Your task to perform on an android device: turn on location history Image 0: 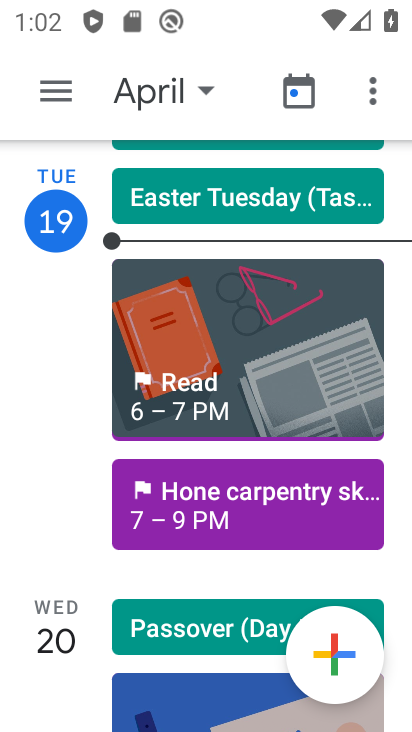
Step 0: press home button
Your task to perform on an android device: turn on location history Image 1: 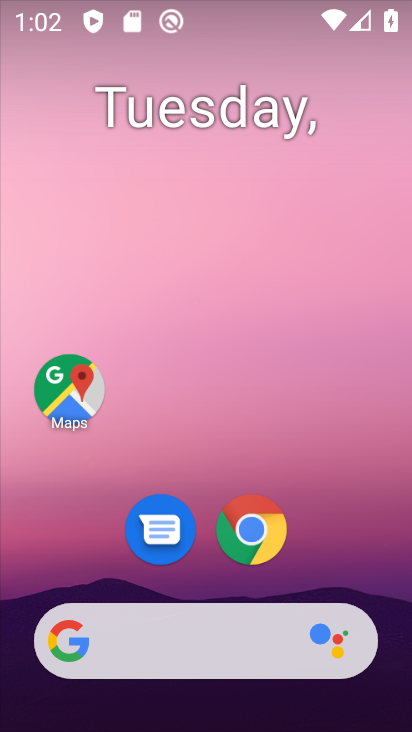
Step 1: click (66, 375)
Your task to perform on an android device: turn on location history Image 2: 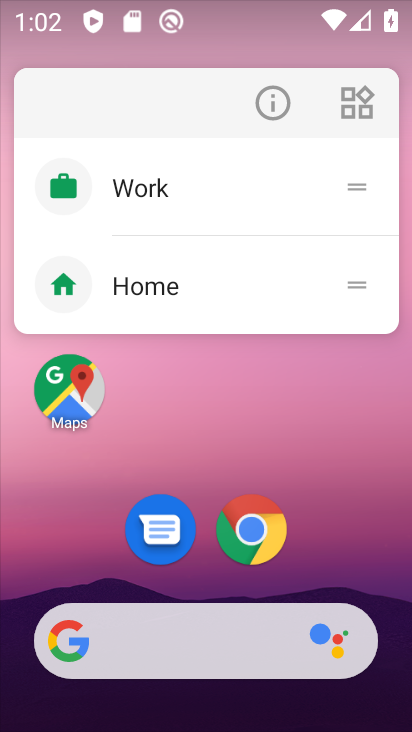
Step 2: click (66, 375)
Your task to perform on an android device: turn on location history Image 3: 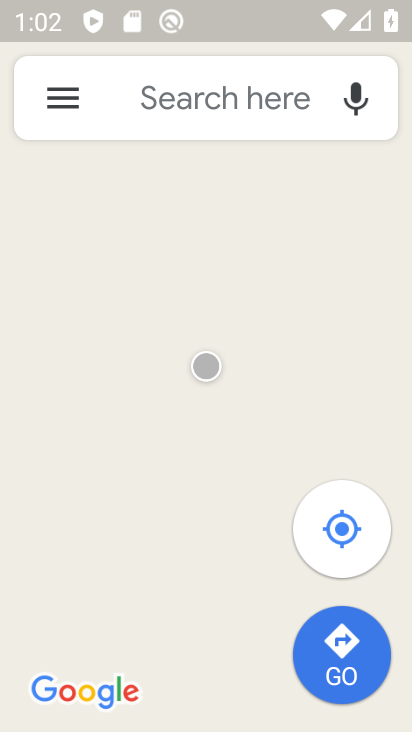
Step 3: click (58, 97)
Your task to perform on an android device: turn on location history Image 4: 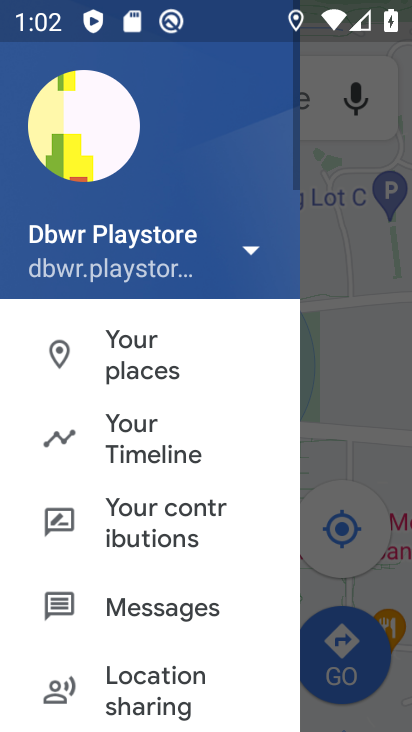
Step 4: click (158, 449)
Your task to perform on an android device: turn on location history Image 5: 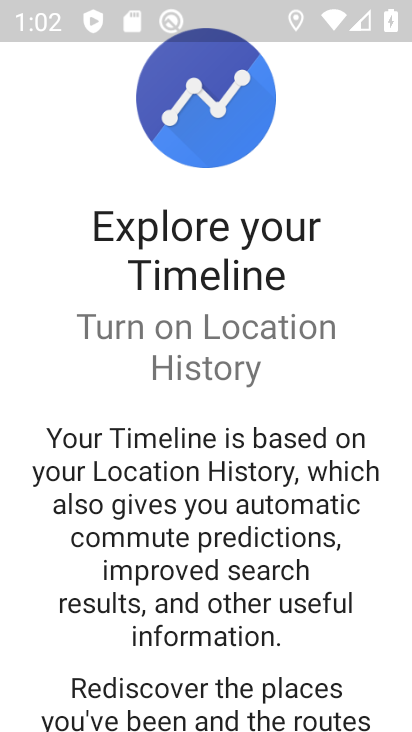
Step 5: drag from (321, 642) to (257, 255)
Your task to perform on an android device: turn on location history Image 6: 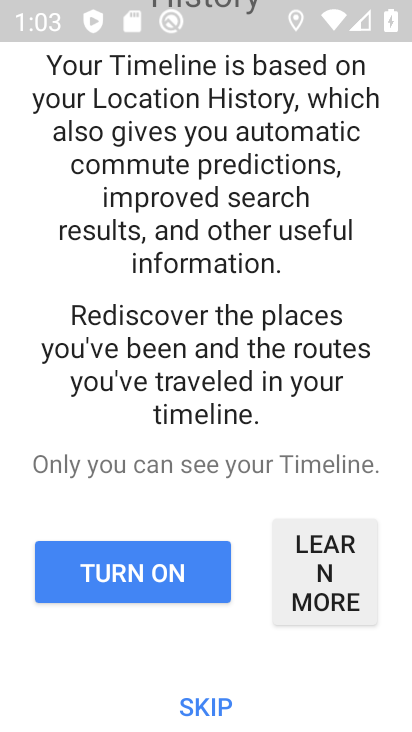
Step 6: click (216, 703)
Your task to perform on an android device: turn on location history Image 7: 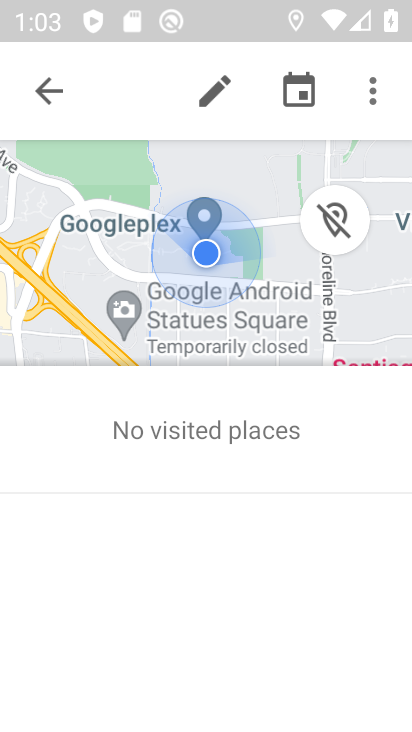
Step 7: click (374, 102)
Your task to perform on an android device: turn on location history Image 8: 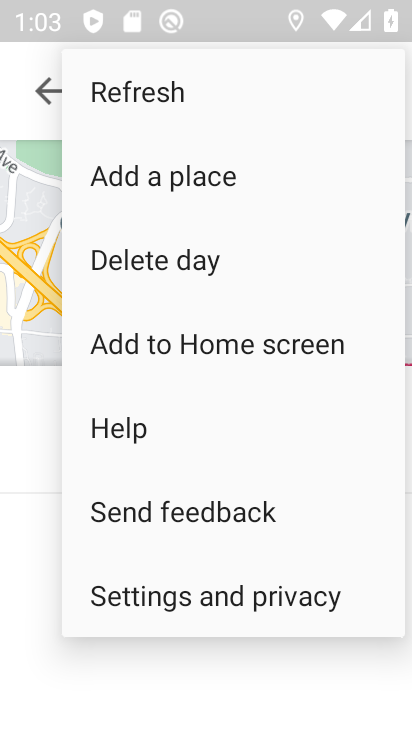
Step 8: click (289, 603)
Your task to perform on an android device: turn on location history Image 9: 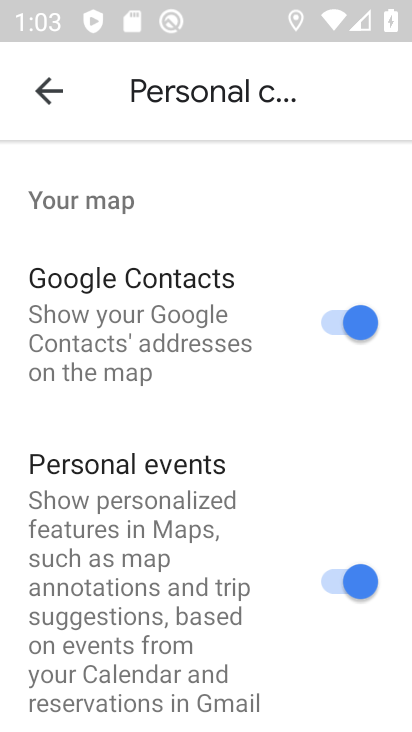
Step 9: drag from (279, 645) to (226, 288)
Your task to perform on an android device: turn on location history Image 10: 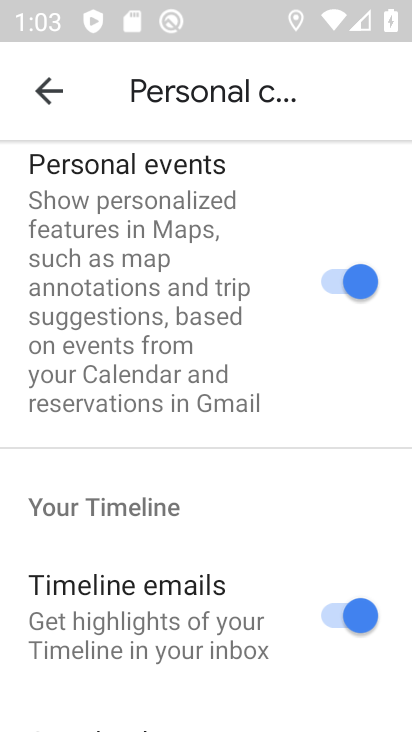
Step 10: drag from (230, 534) to (218, 153)
Your task to perform on an android device: turn on location history Image 11: 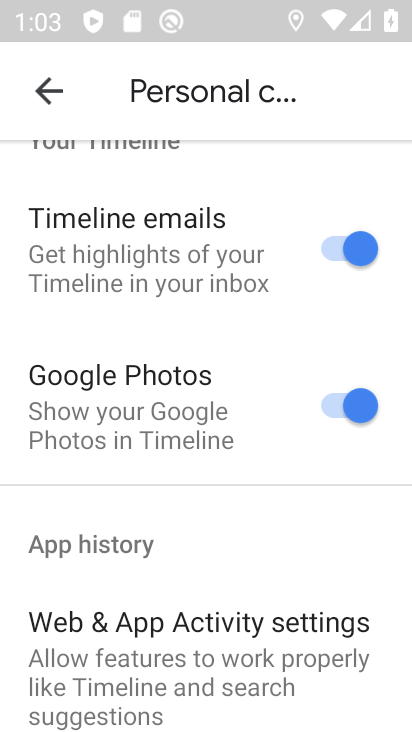
Step 11: drag from (251, 481) to (225, 100)
Your task to perform on an android device: turn on location history Image 12: 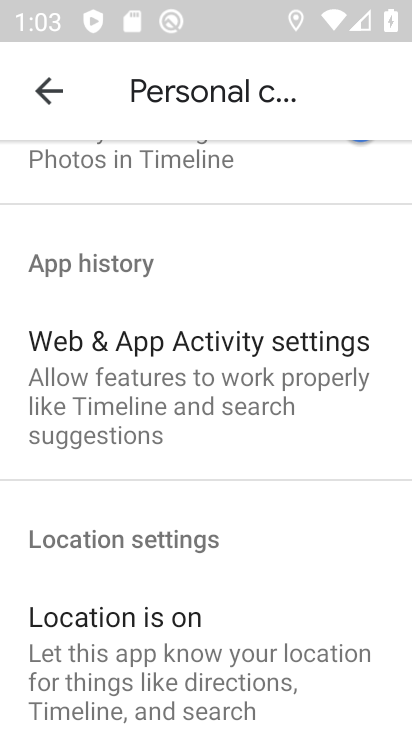
Step 12: drag from (269, 578) to (255, 303)
Your task to perform on an android device: turn on location history Image 13: 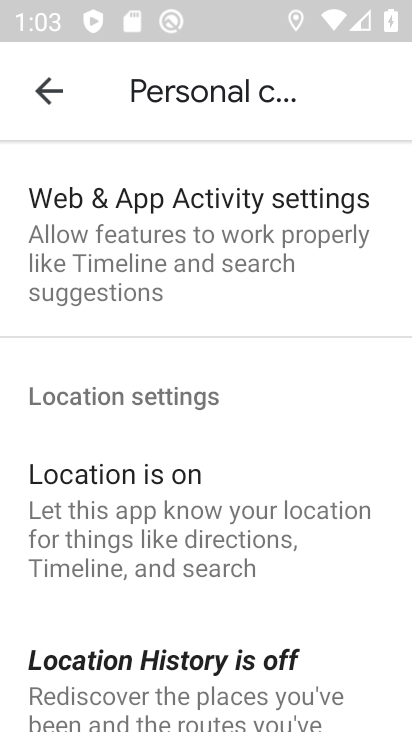
Step 13: click (247, 669)
Your task to perform on an android device: turn on location history Image 14: 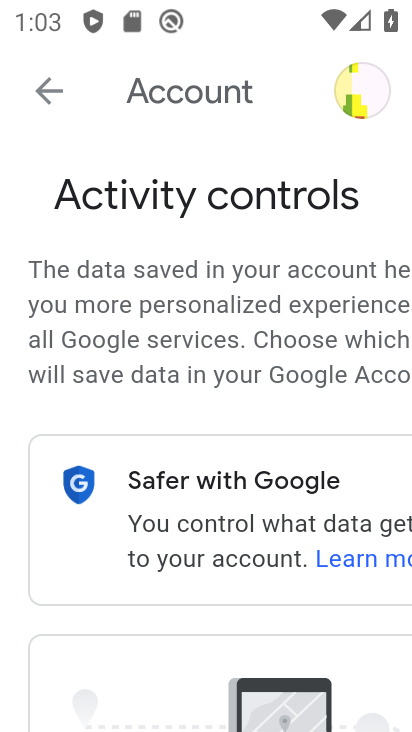
Step 14: drag from (268, 624) to (205, 197)
Your task to perform on an android device: turn on location history Image 15: 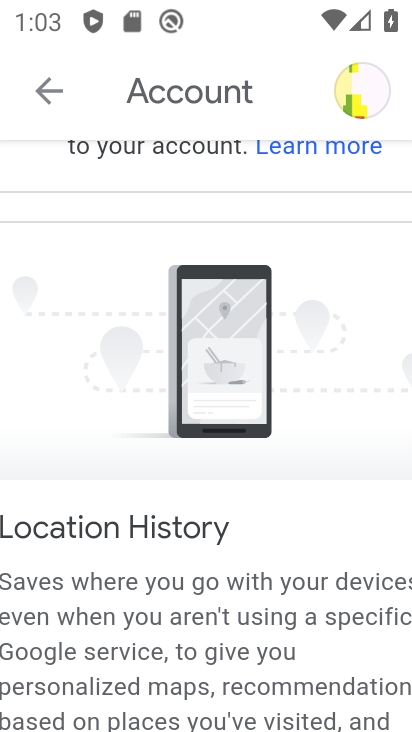
Step 15: drag from (270, 610) to (225, 141)
Your task to perform on an android device: turn on location history Image 16: 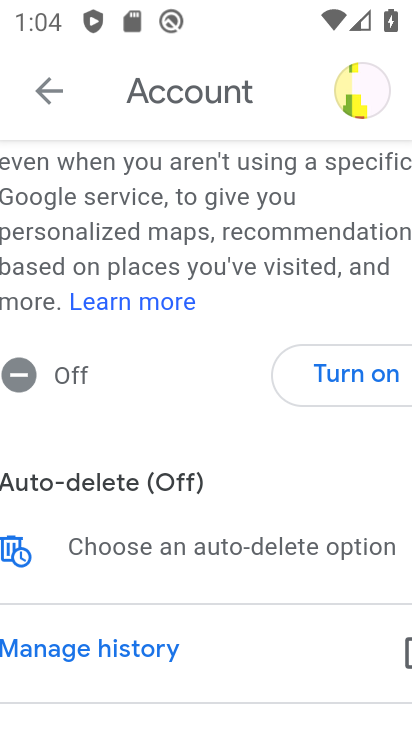
Step 16: click (343, 391)
Your task to perform on an android device: turn on location history Image 17: 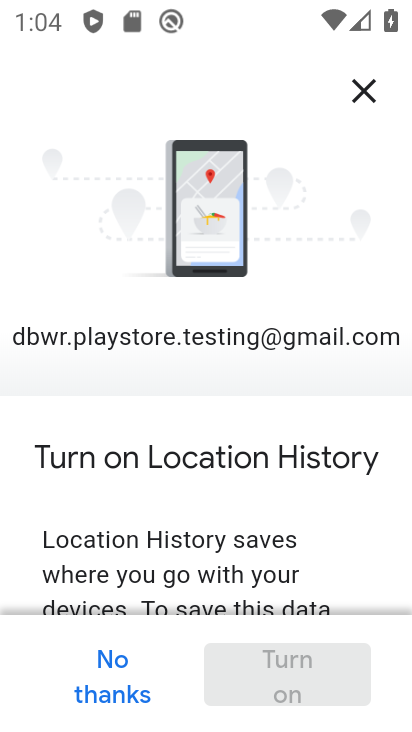
Step 17: drag from (360, 553) to (276, 109)
Your task to perform on an android device: turn on location history Image 18: 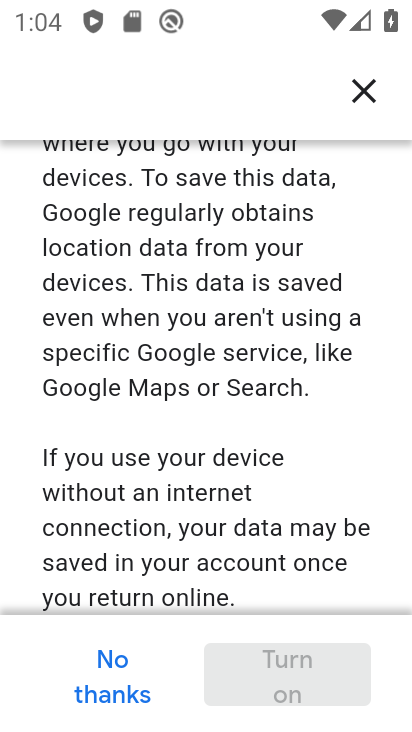
Step 18: drag from (318, 565) to (230, 109)
Your task to perform on an android device: turn on location history Image 19: 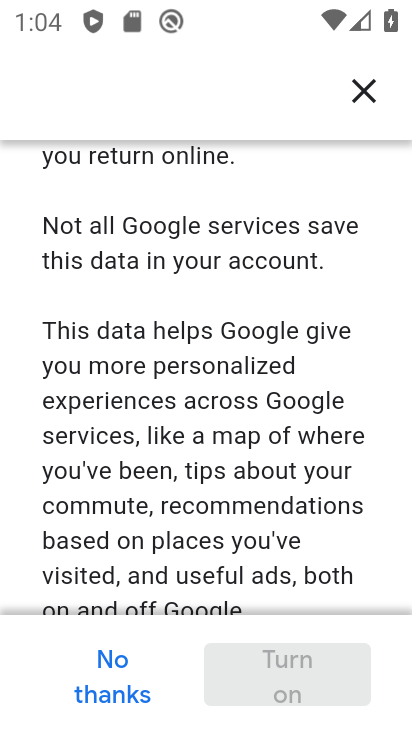
Step 19: drag from (305, 510) to (242, 153)
Your task to perform on an android device: turn on location history Image 20: 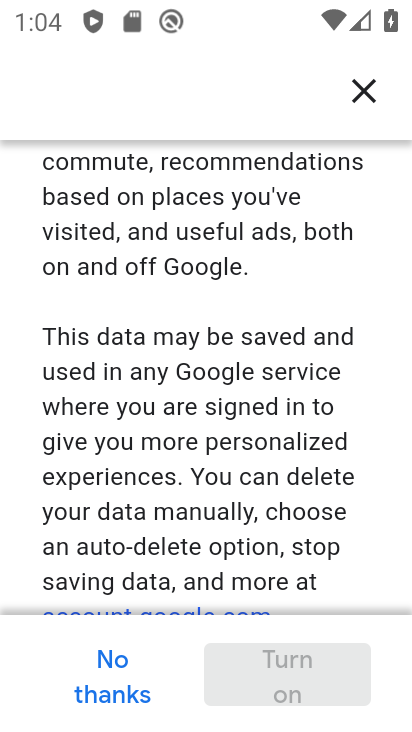
Step 20: drag from (299, 581) to (258, 223)
Your task to perform on an android device: turn on location history Image 21: 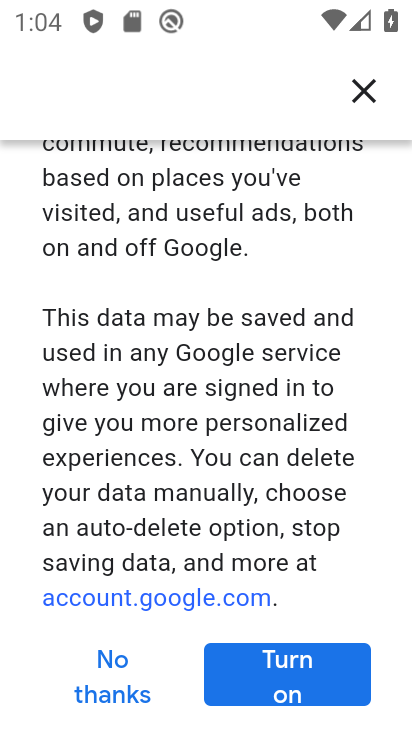
Step 21: click (299, 671)
Your task to perform on an android device: turn on location history Image 22: 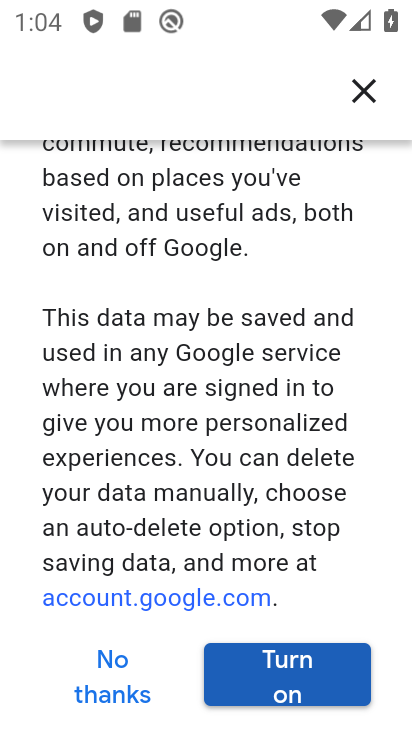
Step 22: click (299, 671)
Your task to perform on an android device: turn on location history Image 23: 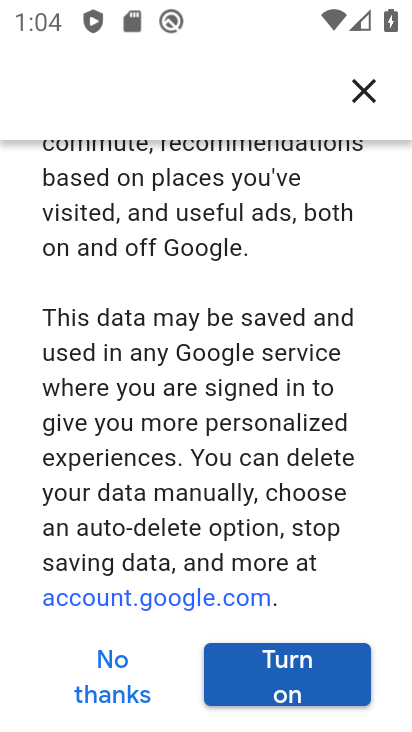
Step 23: click (299, 671)
Your task to perform on an android device: turn on location history Image 24: 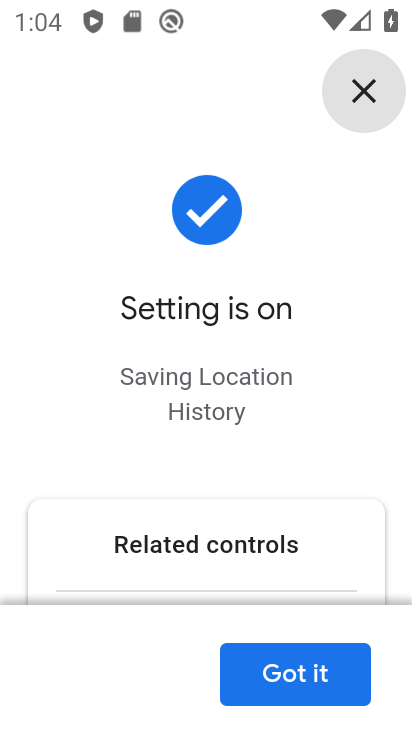
Step 24: click (299, 671)
Your task to perform on an android device: turn on location history Image 25: 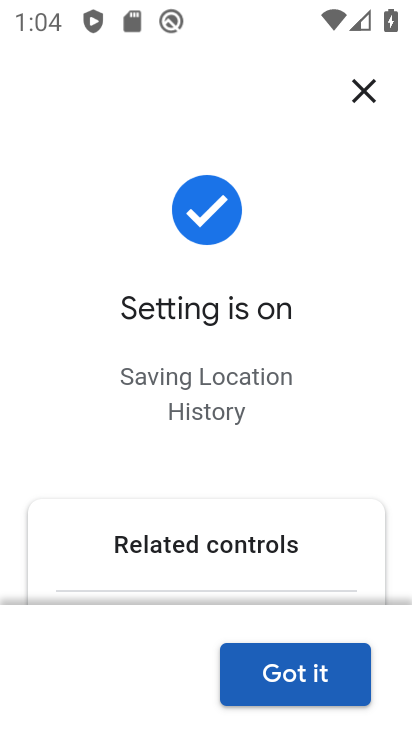
Step 25: click (299, 671)
Your task to perform on an android device: turn on location history Image 26: 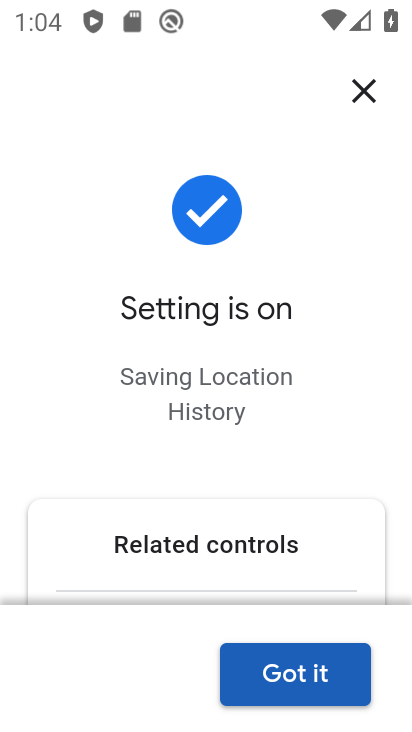
Step 26: drag from (355, 436) to (255, 42)
Your task to perform on an android device: turn on location history Image 27: 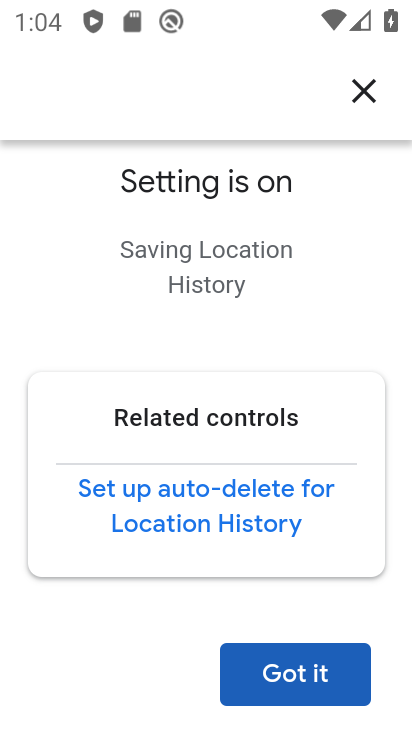
Step 27: click (308, 672)
Your task to perform on an android device: turn on location history Image 28: 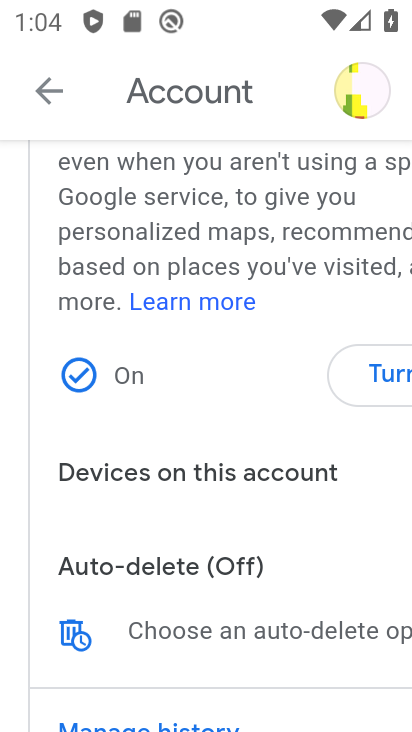
Step 28: task complete